Your task to perform on an android device: empty trash in google photos Image 0: 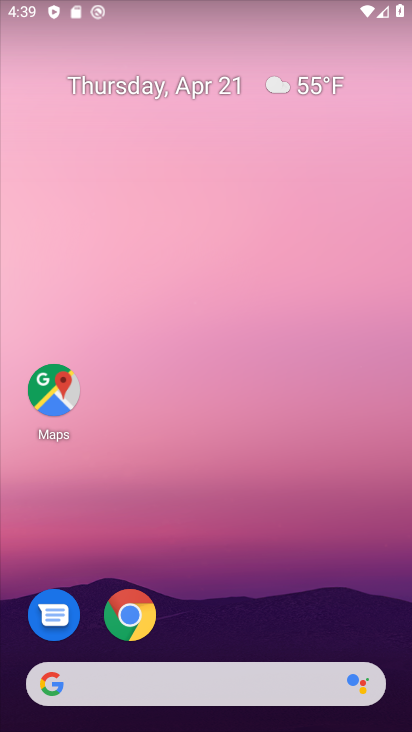
Step 0: drag from (275, 534) to (208, 26)
Your task to perform on an android device: empty trash in google photos Image 1: 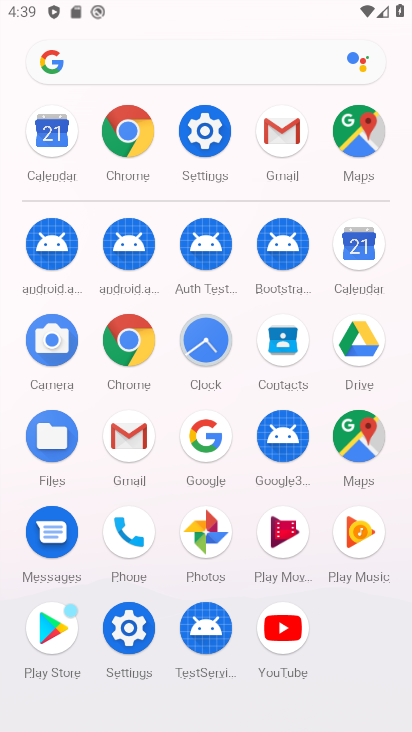
Step 1: drag from (2, 550) to (2, 263)
Your task to perform on an android device: empty trash in google photos Image 2: 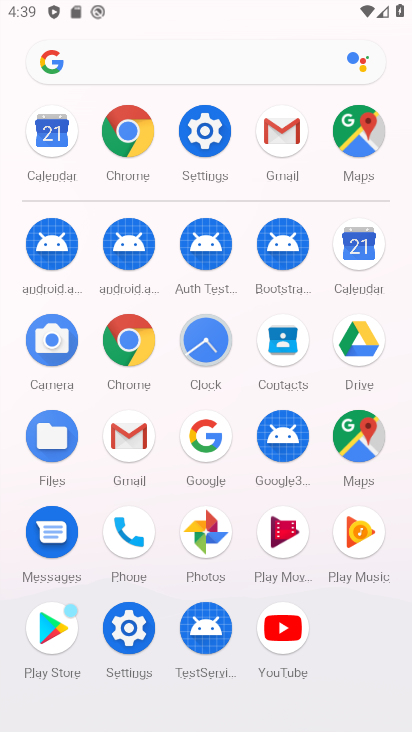
Step 2: click (199, 529)
Your task to perform on an android device: empty trash in google photos Image 3: 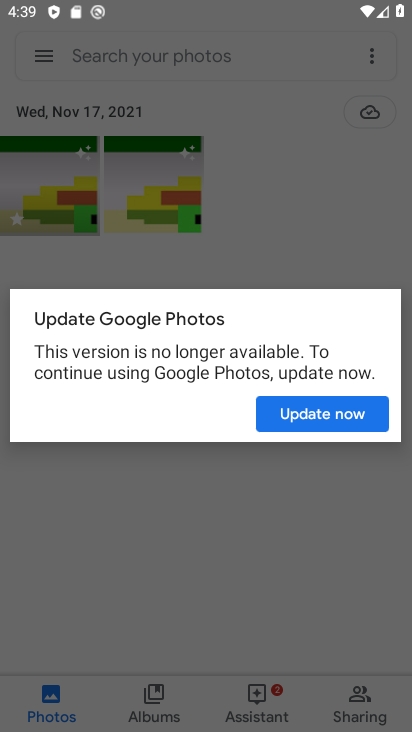
Step 3: click (305, 395)
Your task to perform on an android device: empty trash in google photos Image 4: 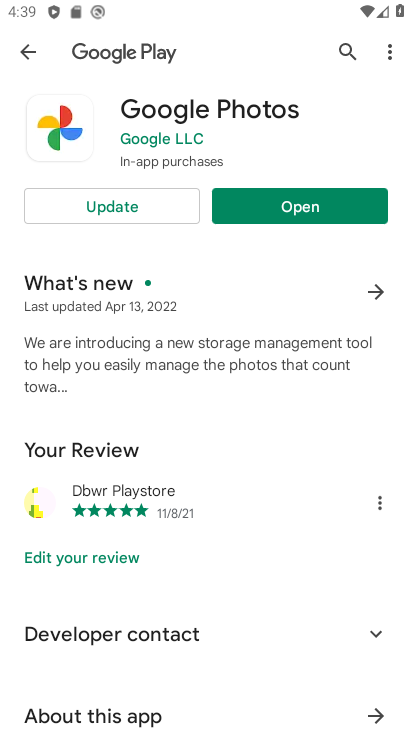
Step 4: click (148, 221)
Your task to perform on an android device: empty trash in google photos Image 5: 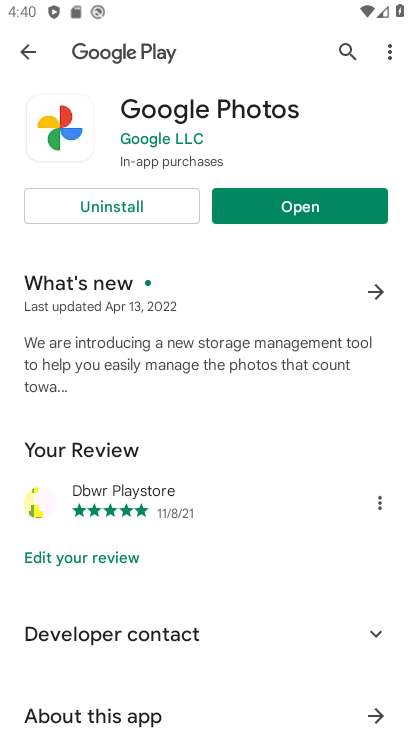
Step 5: click (267, 207)
Your task to perform on an android device: empty trash in google photos Image 6: 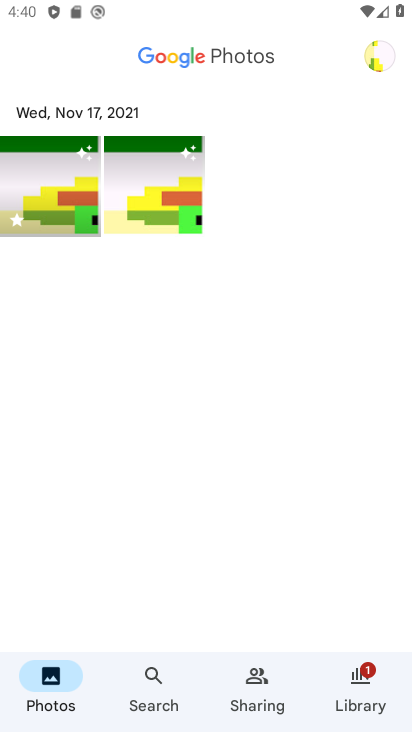
Step 6: click (356, 703)
Your task to perform on an android device: empty trash in google photos Image 7: 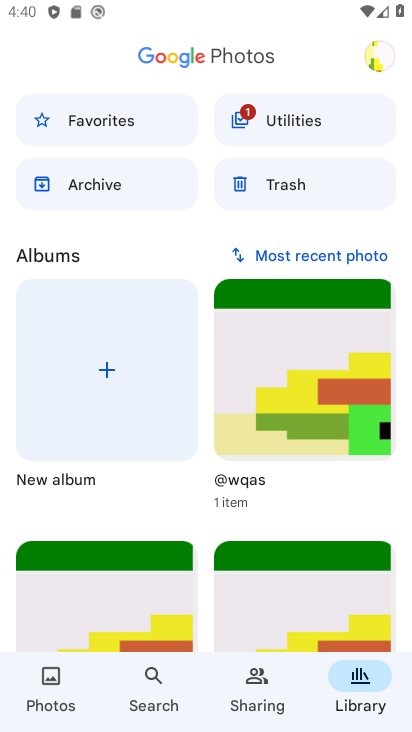
Step 7: click (311, 175)
Your task to perform on an android device: empty trash in google photos Image 8: 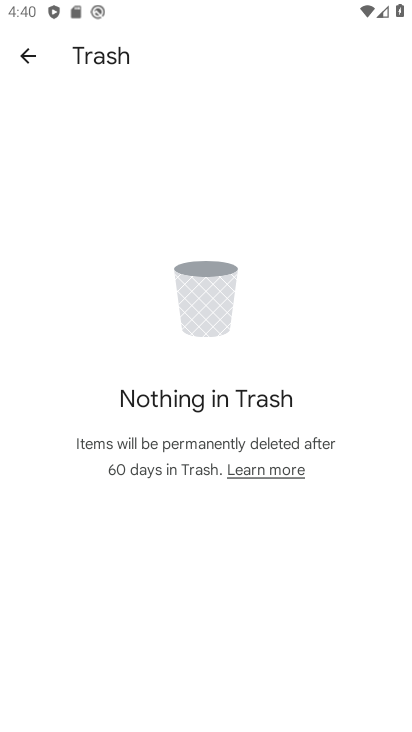
Step 8: task complete